Your task to perform on an android device: uninstall "Lyft - Rideshare, Bikes, Scooters & Transit" Image 0: 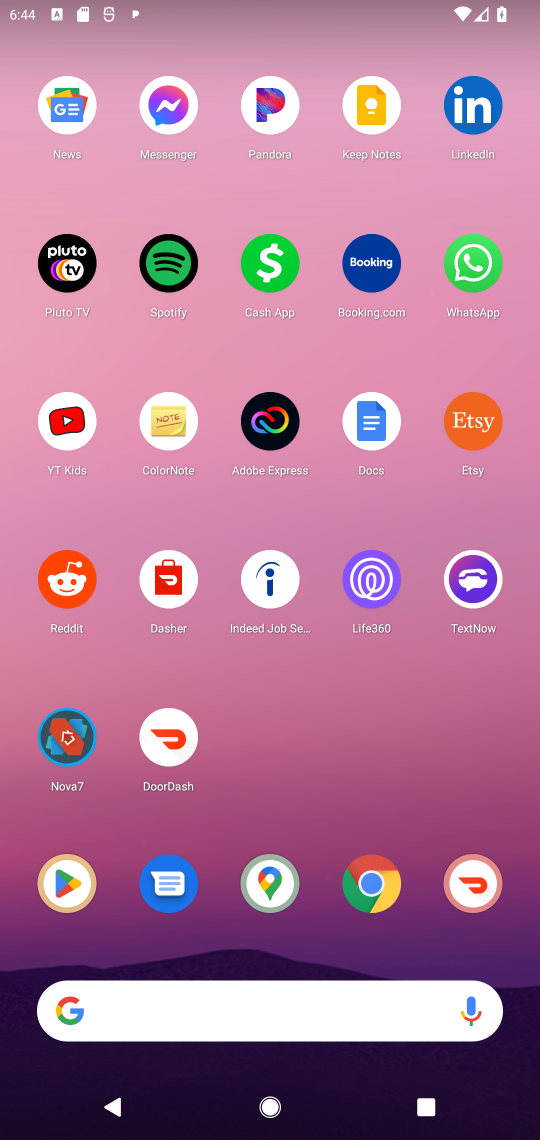
Step 0: click (42, 887)
Your task to perform on an android device: uninstall "Lyft - Rideshare, Bikes, Scooters & Transit" Image 1: 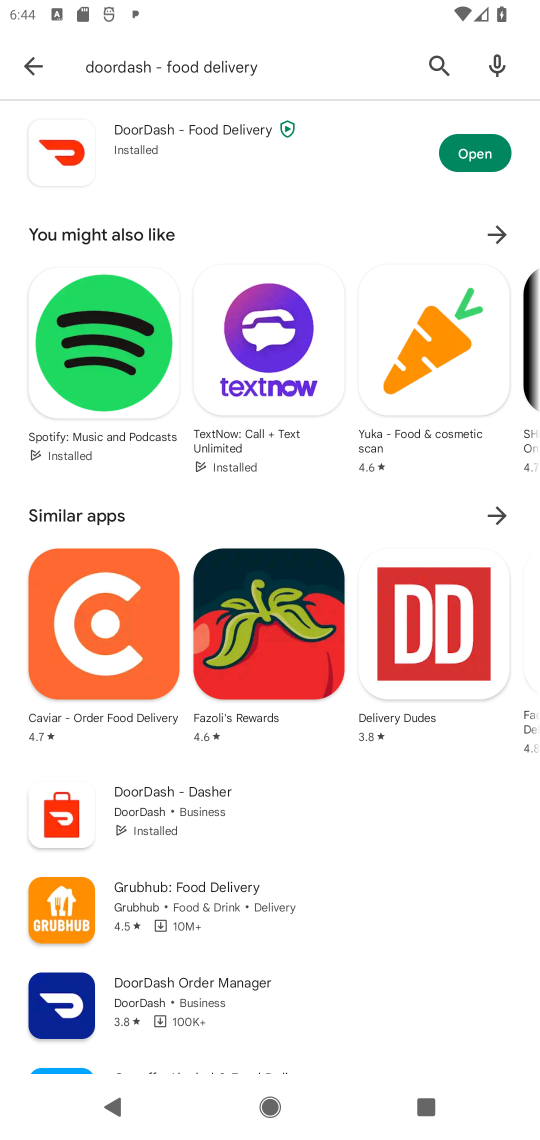
Step 1: click (25, 59)
Your task to perform on an android device: uninstall "Lyft - Rideshare, Bikes, Scooters & Transit" Image 2: 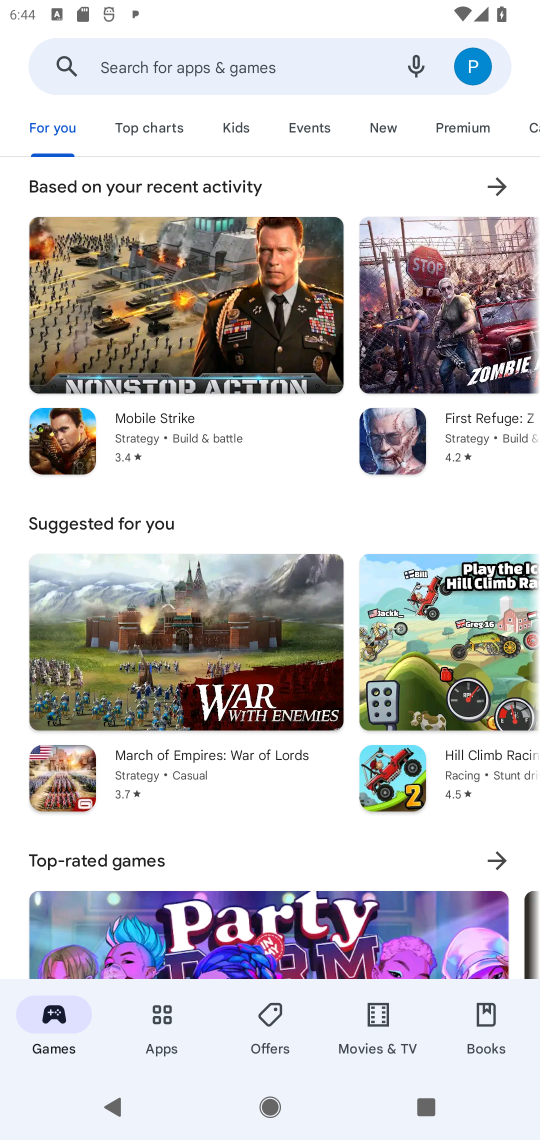
Step 2: click (153, 71)
Your task to perform on an android device: uninstall "Lyft - Rideshare, Bikes, Scooters & Transit" Image 3: 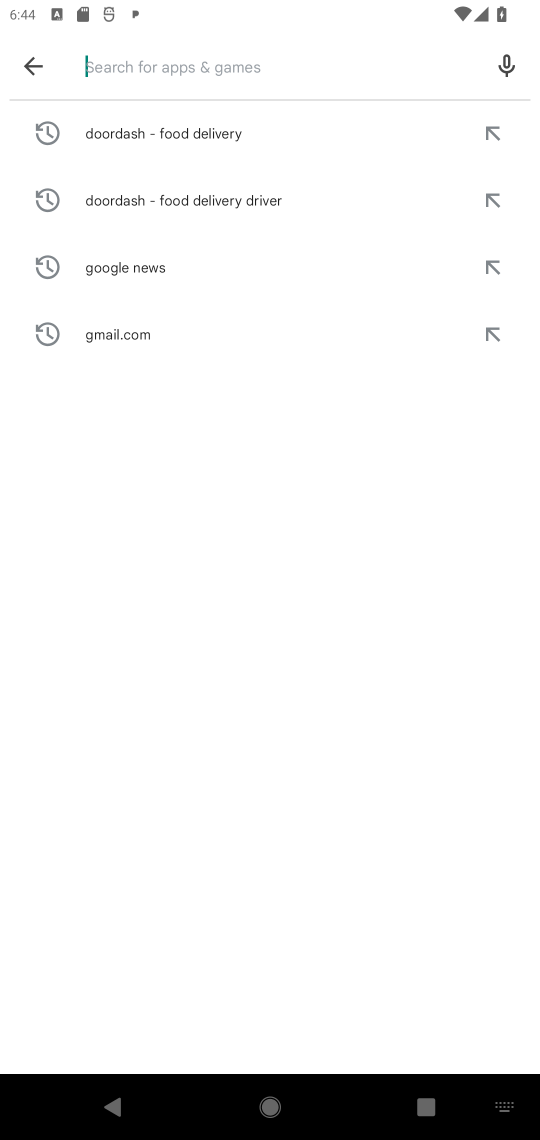
Step 3: type "Lyft - Rideshare, Bikes, Scooters & Transit"
Your task to perform on an android device: uninstall "Lyft - Rideshare, Bikes, Scooters & Transit" Image 4: 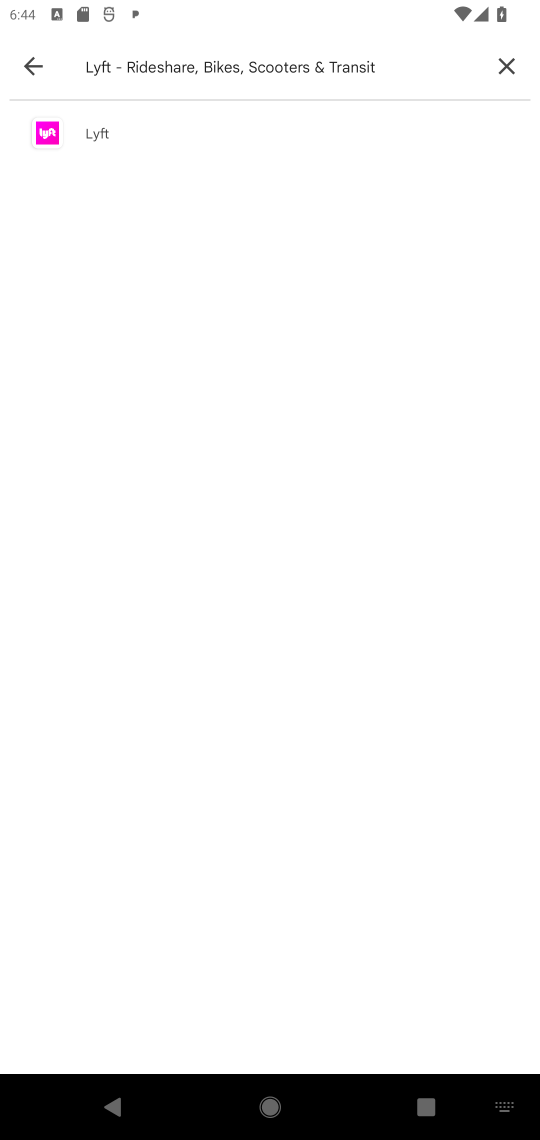
Step 4: click (108, 132)
Your task to perform on an android device: uninstall "Lyft - Rideshare, Bikes, Scooters & Transit" Image 5: 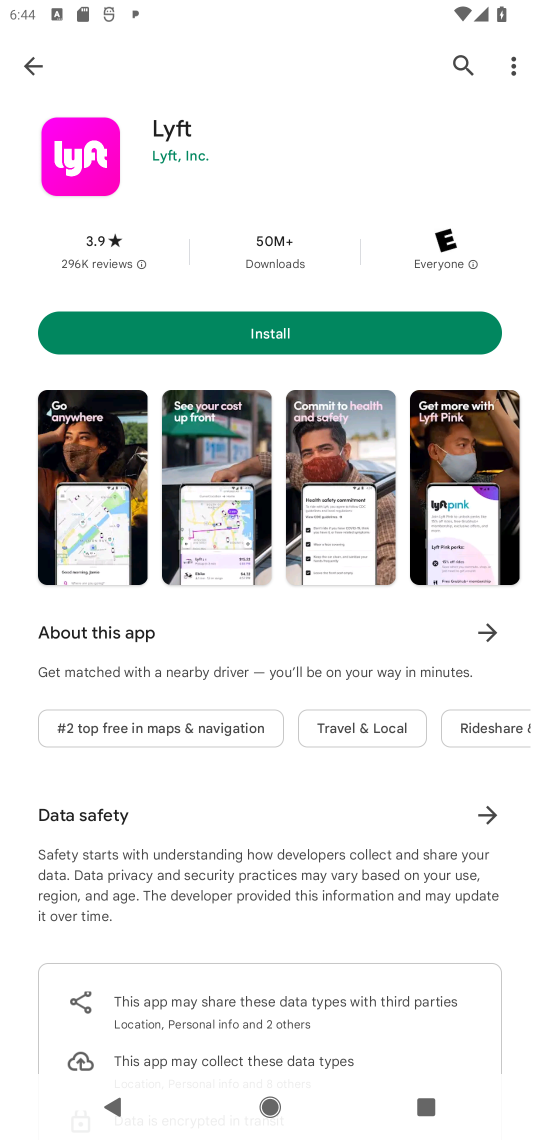
Step 5: task complete